Your task to perform on an android device: check android version Image 0: 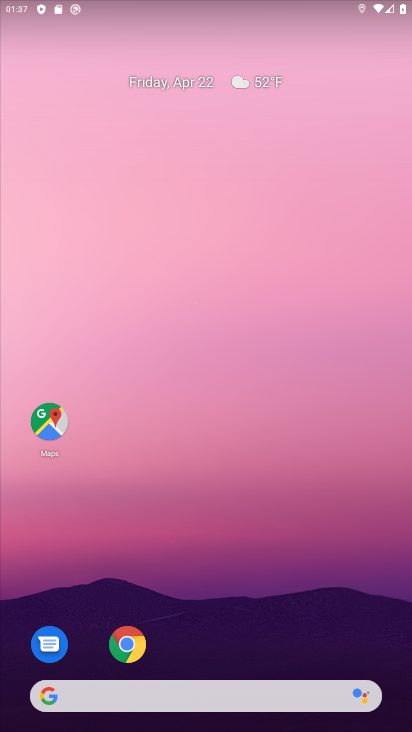
Step 0: drag from (355, 663) to (280, 260)
Your task to perform on an android device: check android version Image 1: 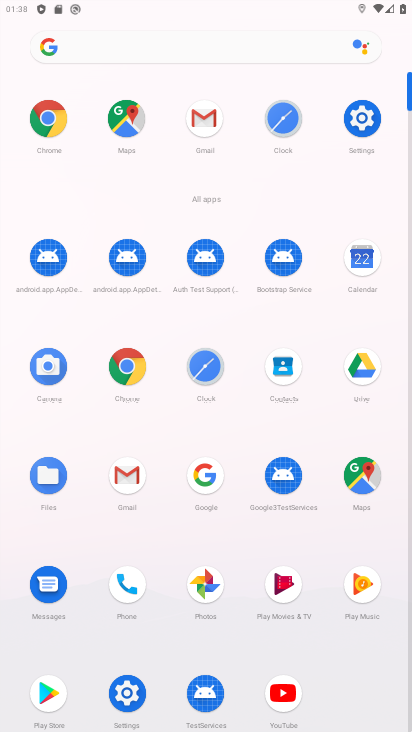
Step 1: click (145, 689)
Your task to perform on an android device: check android version Image 2: 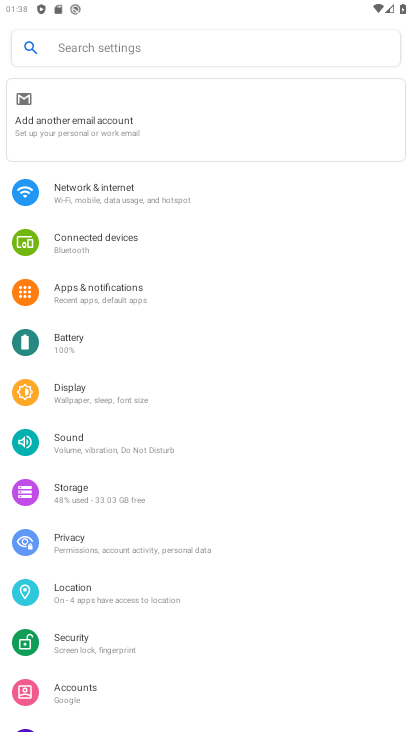
Step 2: task complete